Your task to perform on an android device: Open Google Chrome Image 0: 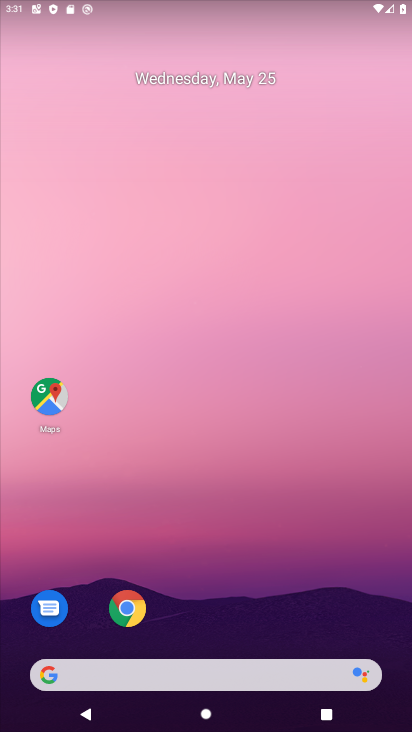
Step 0: click (120, 612)
Your task to perform on an android device: Open Google Chrome Image 1: 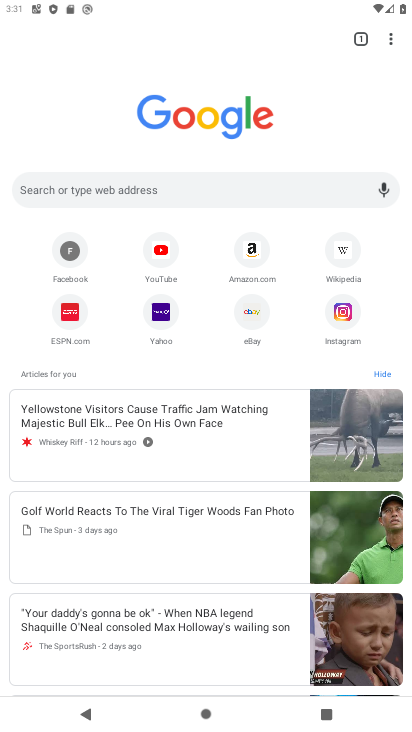
Step 1: task complete